Your task to perform on an android device: Is it going to rain today? Image 0: 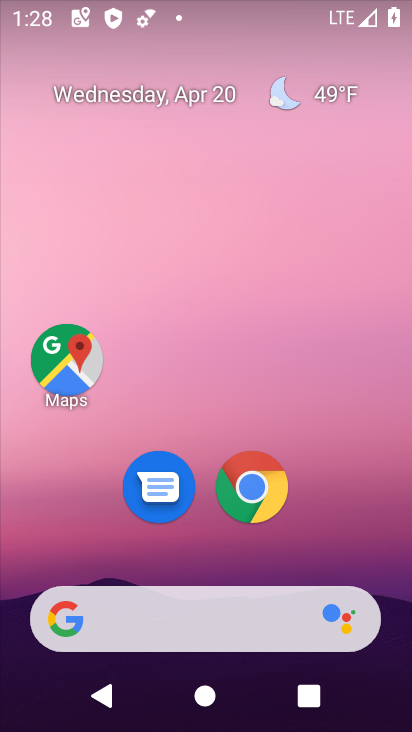
Step 0: drag from (376, 464) to (264, 210)
Your task to perform on an android device: Is it going to rain today? Image 1: 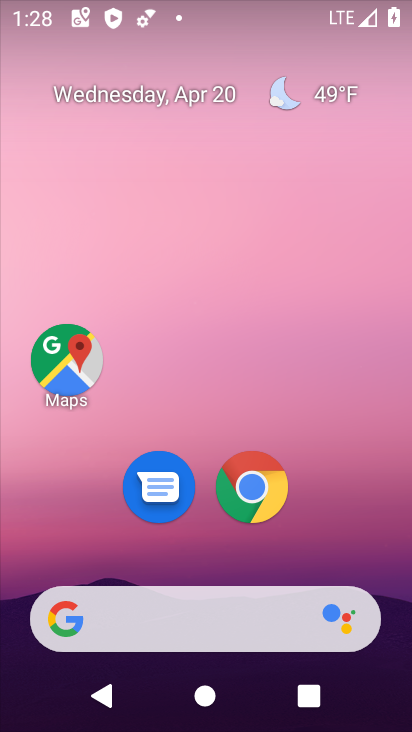
Step 1: click (276, 498)
Your task to perform on an android device: Is it going to rain today? Image 2: 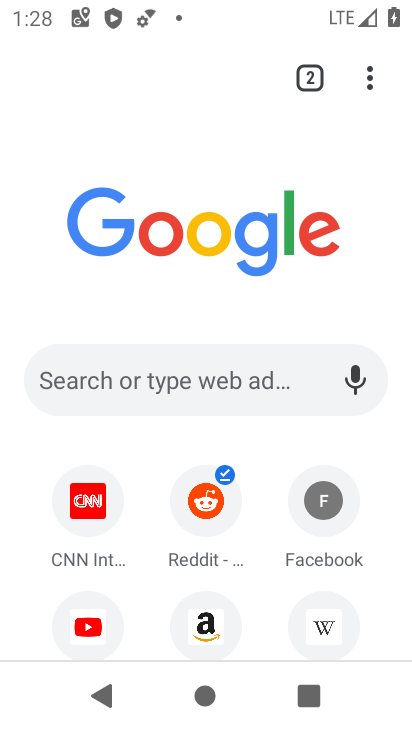
Step 2: click (264, 376)
Your task to perform on an android device: Is it going to rain today? Image 3: 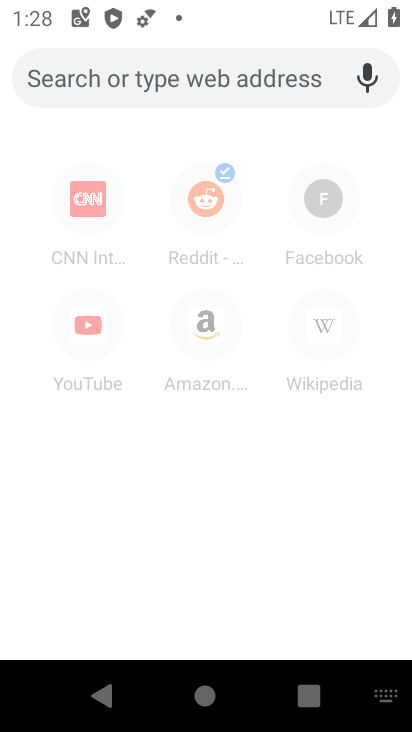
Step 3: type "Is it going to rain today?"
Your task to perform on an android device: Is it going to rain today? Image 4: 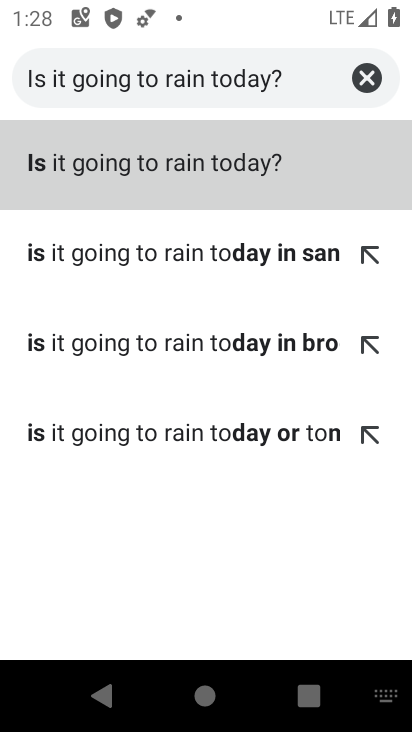
Step 4: click (286, 173)
Your task to perform on an android device: Is it going to rain today? Image 5: 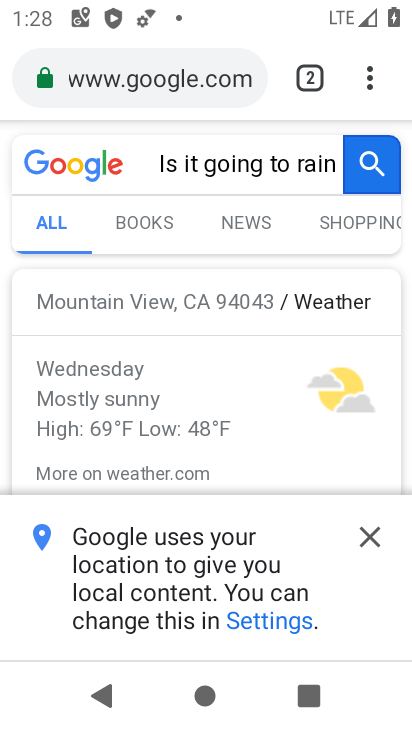
Step 5: click (369, 538)
Your task to perform on an android device: Is it going to rain today? Image 6: 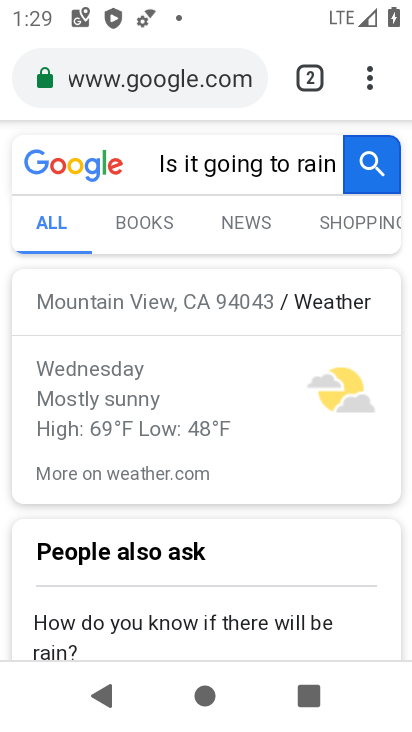
Step 6: task complete